Your task to perform on an android device: turn on improve location accuracy Image 0: 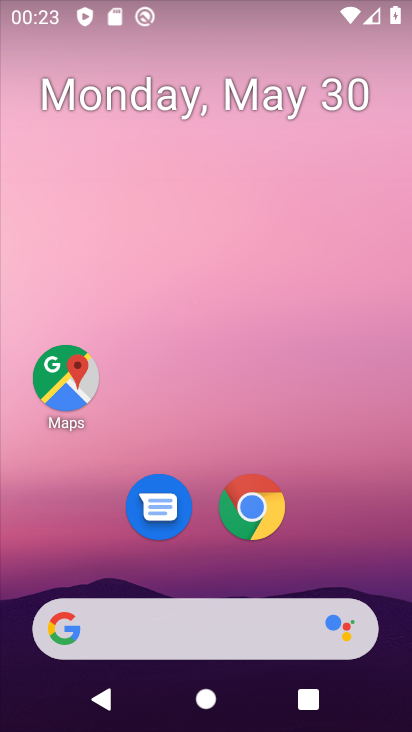
Step 0: drag from (333, 547) to (323, 162)
Your task to perform on an android device: turn on improve location accuracy Image 1: 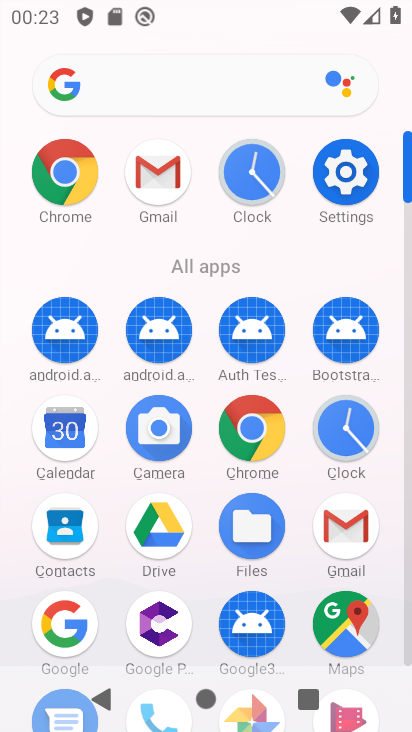
Step 1: click (356, 162)
Your task to perform on an android device: turn on improve location accuracy Image 2: 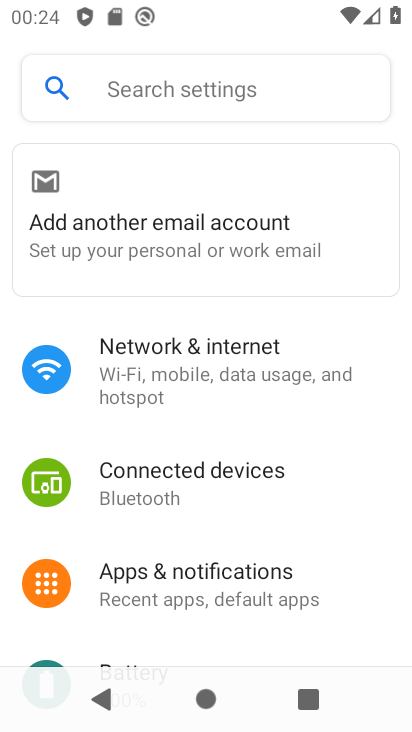
Step 2: drag from (205, 591) to (199, 367)
Your task to perform on an android device: turn on improve location accuracy Image 3: 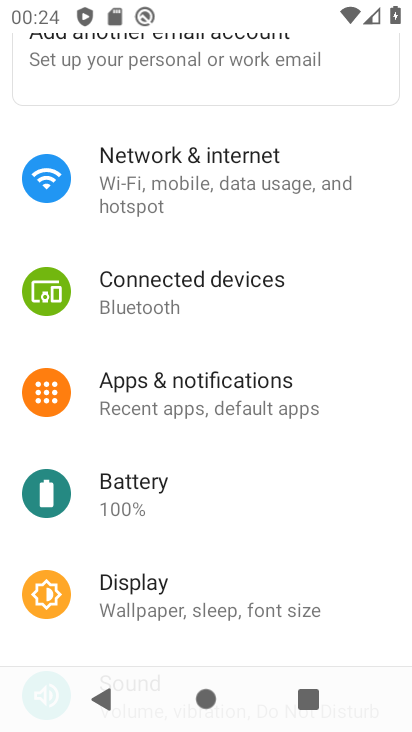
Step 3: drag from (200, 543) to (224, 278)
Your task to perform on an android device: turn on improve location accuracy Image 4: 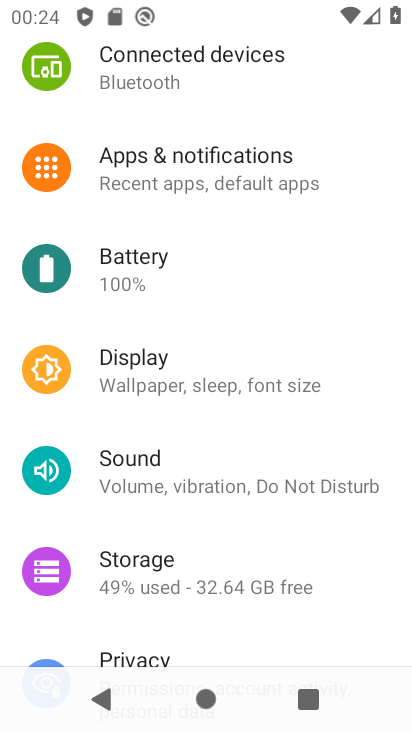
Step 4: drag from (197, 589) to (224, 258)
Your task to perform on an android device: turn on improve location accuracy Image 5: 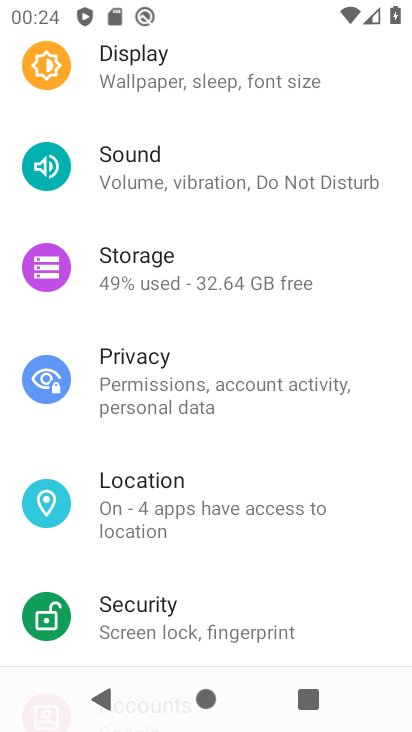
Step 5: click (167, 485)
Your task to perform on an android device: turn on improve location accuracy Image 6: 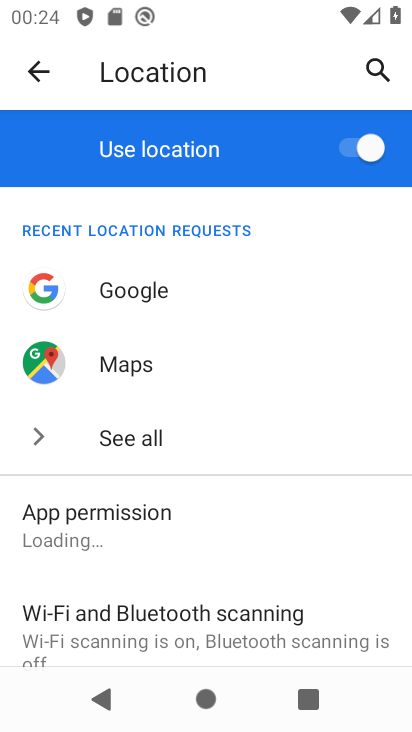
Step 6: drag from (183, 552) to (173, 300)
Your task to perform on an android device: turn on improve location accuracy Image 7: 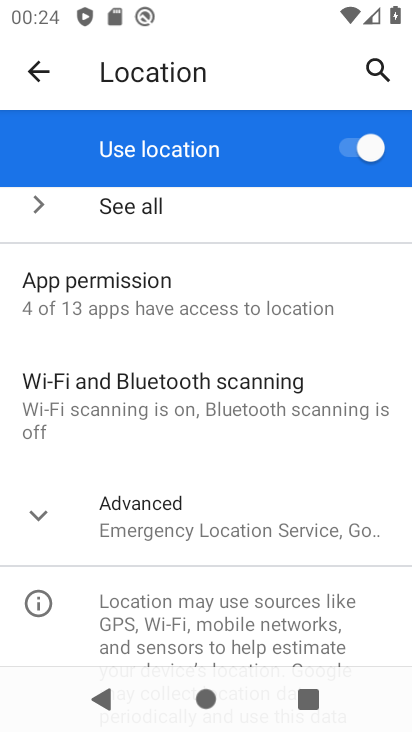
Step 7: click (178, 522)
Your task to perform on an android device: turn on improve location accuracy Image 8: 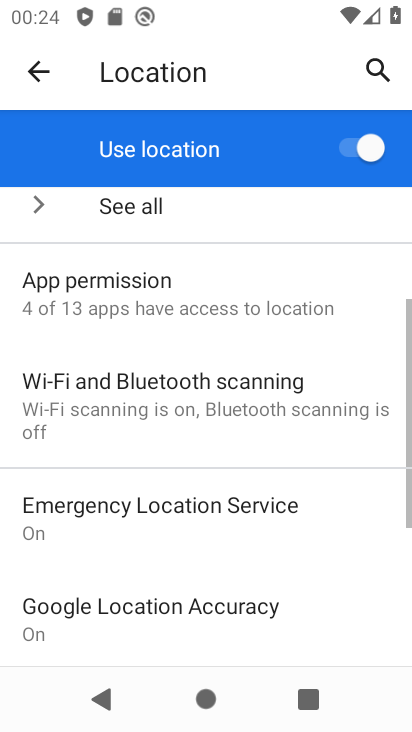
Step 8: drag from (181, 573) to (205, 314)
Your task to perform on an android device: turn on improve location accuracy Image 9: 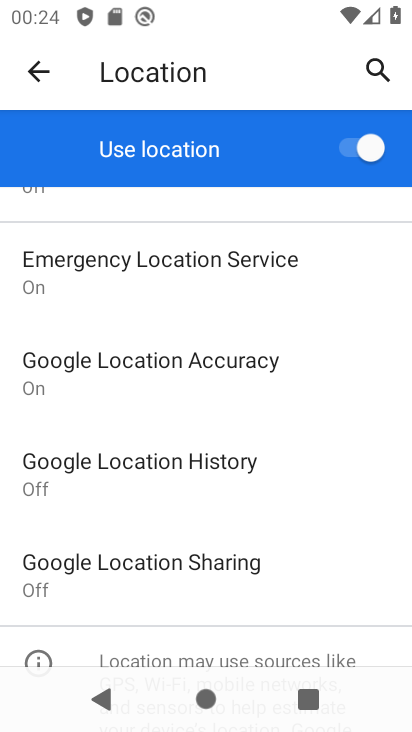
Step 9: click (138, 487)
Your task to perform on an android device: turn on improve location accuracy Image 10: 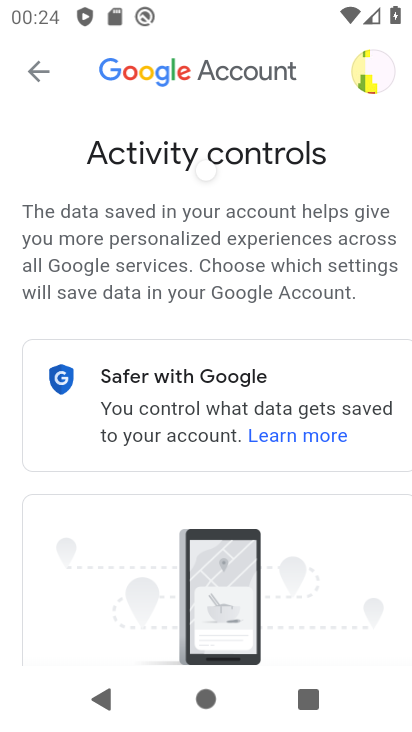
Step 10: drag from (266, 540) to (272, 304)
Your task to perform on an android device: turn on improve location accuracy Image 11: 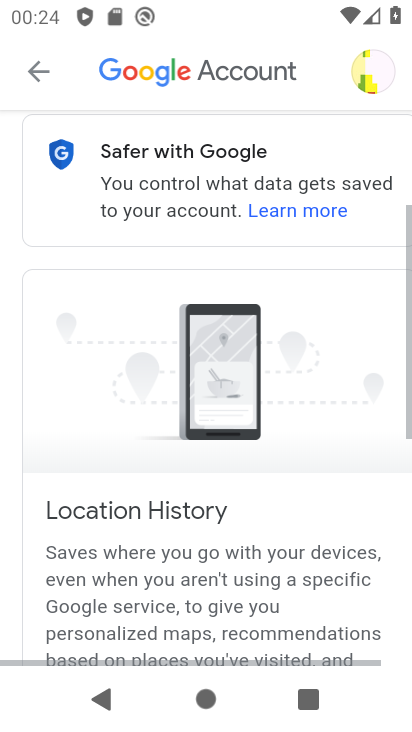
Step 11: click (26, 69)
Your task to perform on an android device: turn on improve location accuracy Image 12: 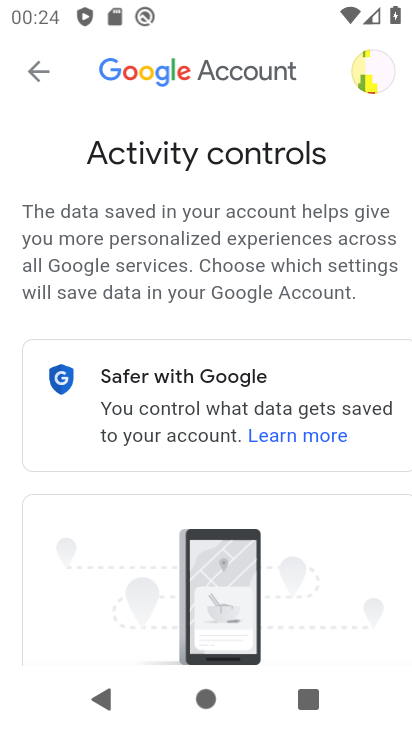
Step 12: click (34, 58)
Your task to perform on an android device: turn on improve location accuracy Image 13: 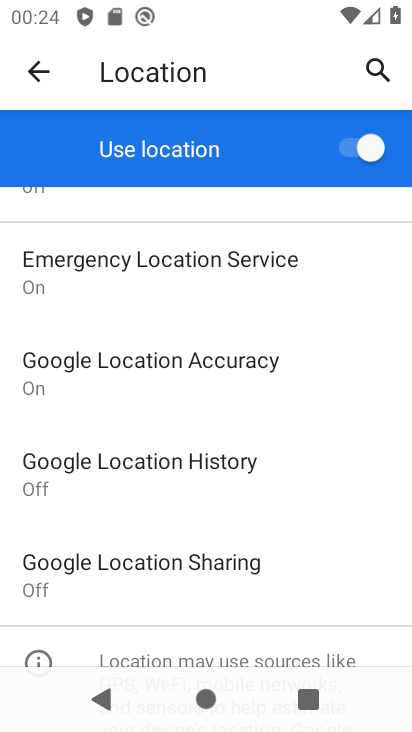
Step 13: click (184, 381)
Your task to perform on an android device: turn on improve location accuracy Image 14: 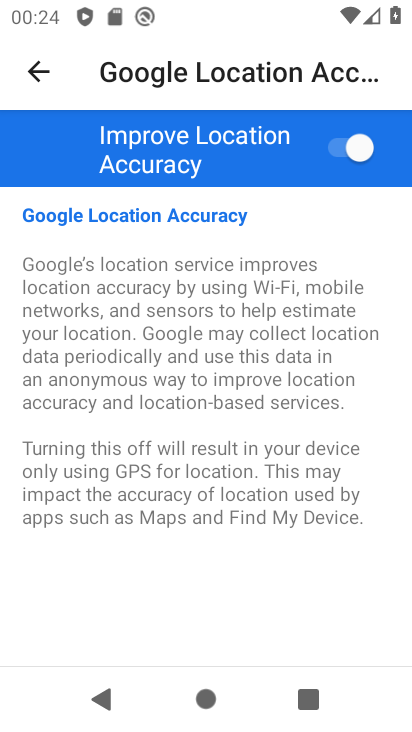
Step 14: task complete